Your task to perform on an android device: What's the news in the Bahamas? Image 0: 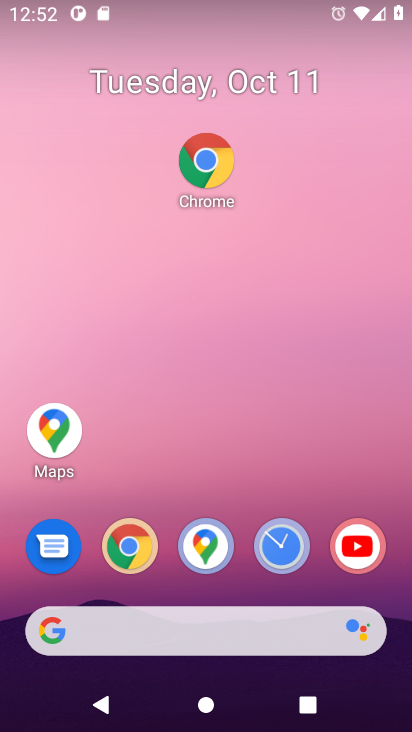
Step 0: click (212, 168)
Your task to perform on an android device: What's the news in the Bahamas? Image 1: 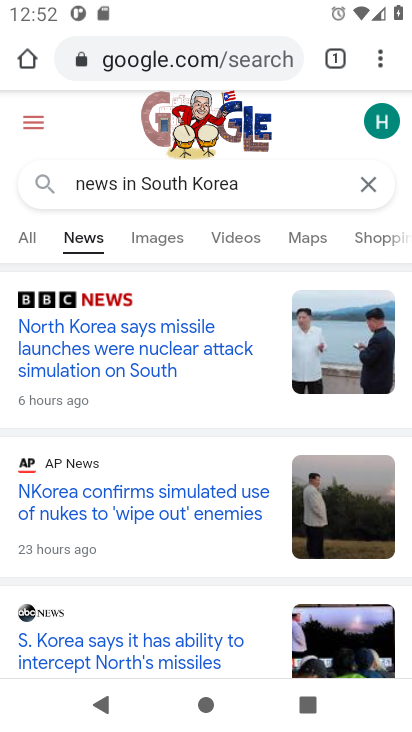
Step 1: click (221, 60)
Your task to perform on an android device: What's the news in the Bahamas? Image 2: 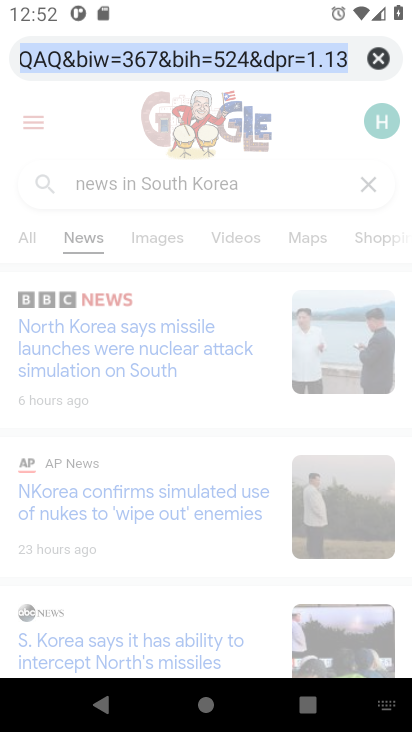
Step 2: type "news in the Bahamas"
Your task to perform on an android device: What's the news in the Bahamas? Image 3: 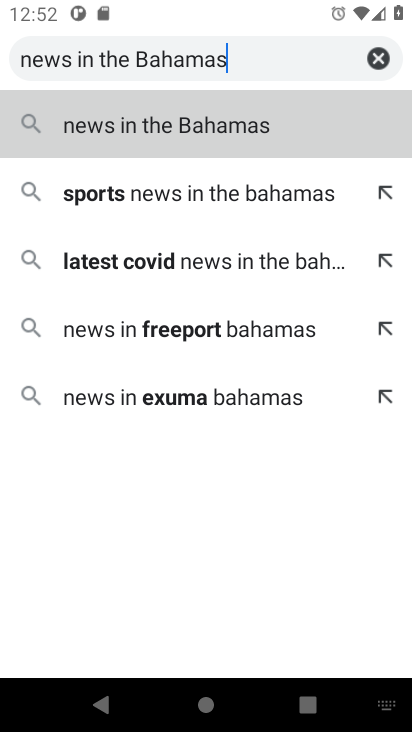
Step 3: press enter
Your task to perform on an android device: What's the news in the Bahamas? Image 4: 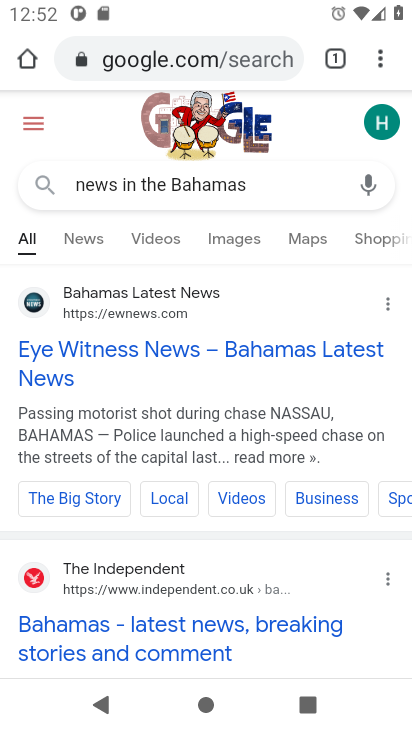
Step 4: click (95, 238)
Your task to perform on an android device: What's the news in the Bahamas? Image 5: 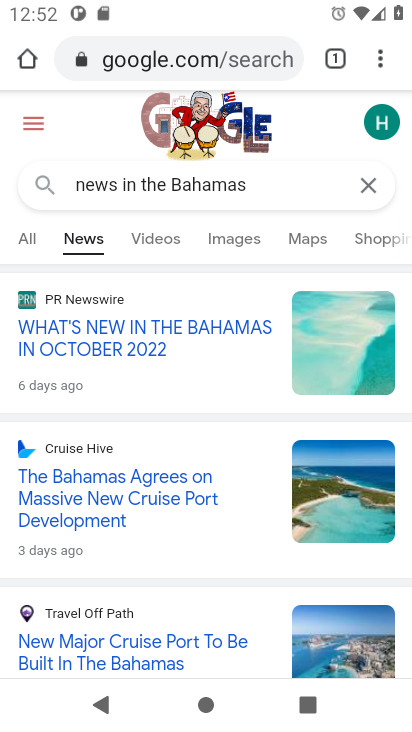
Step 5: task complete